Your task to perform on an android device: Open settings on Google Maps Image 0: 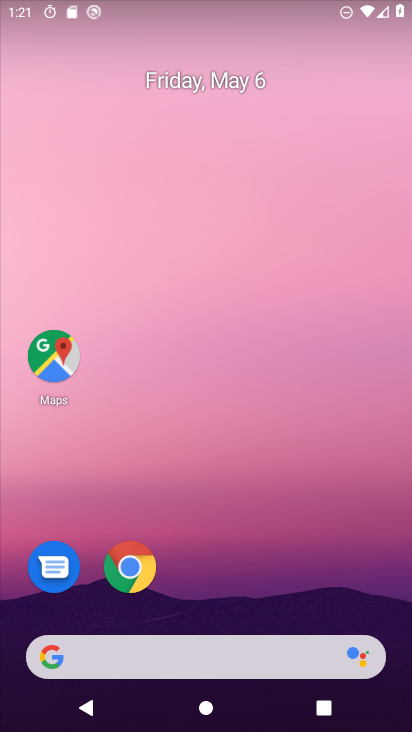
Step 0: drag from (249, 684) to (204, 375)
Your task to perform on an android device: Open settings on Google Maps Image 1: 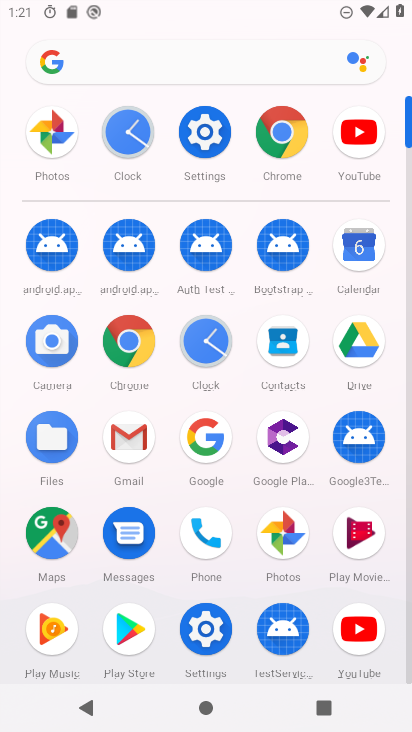
Step 1: click (59, 536)
Your task to perform on an android device: Open settings on Google Maps Image 2: 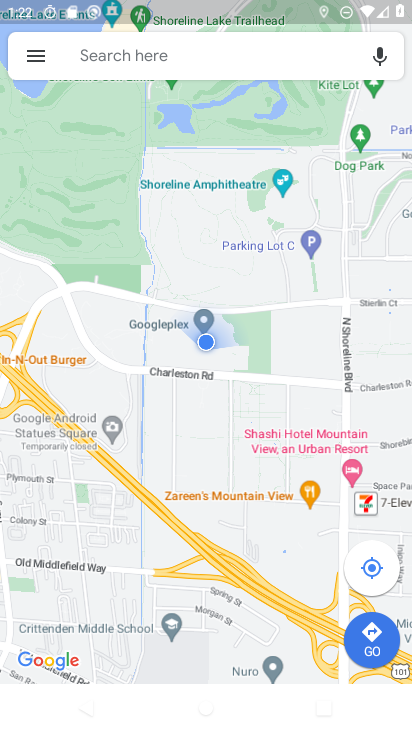
Step 2: click (31, 55)
Your task to perform on an android device: Open settings on Google Maps Image 3: 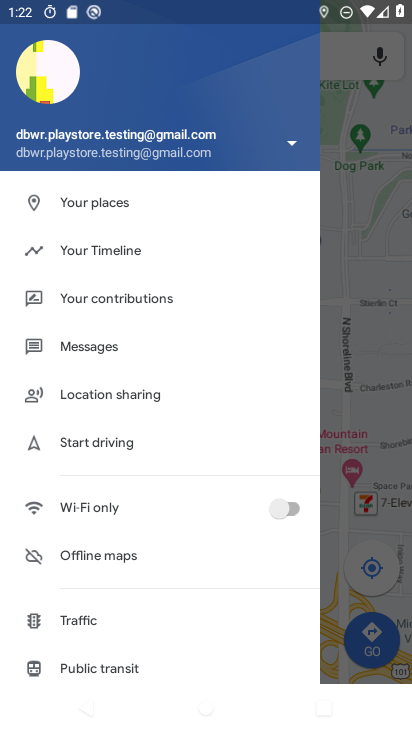
Step 3: drag from (138, 620) to (208, 358)
Your task to perform on an android device: Open settings on Google Maps Image 4: 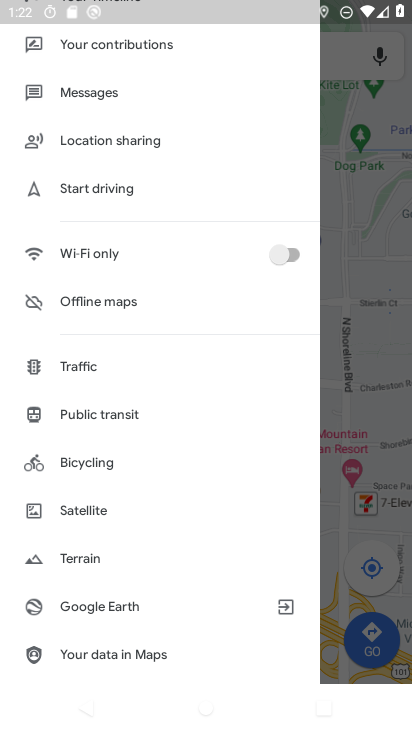
Step 4: drag from (119, 581) to (120, 292)
Your task to perform on an android device: Open settings on Google Maps Image 5: 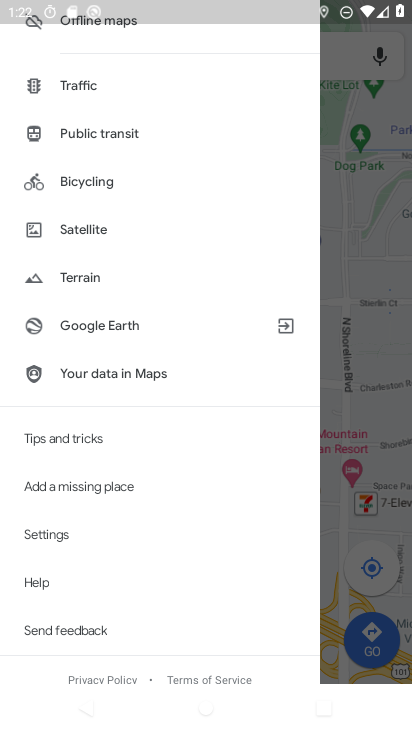
Step 5: click (87, 537)
Your task to perform on an android device: Open settings on Google Maps Image 6: 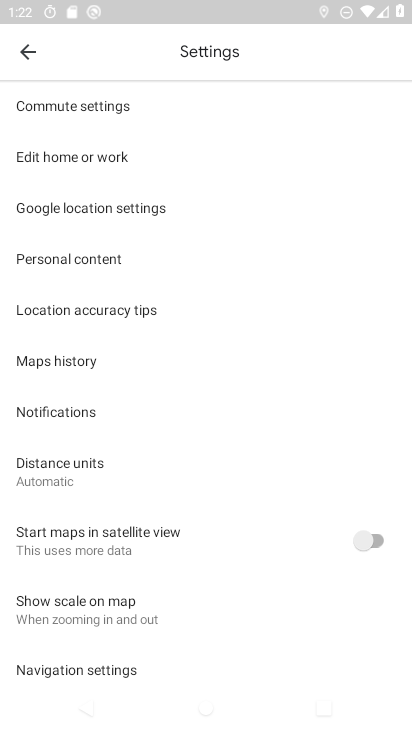
Step 6: task complete